Your task to perform on an android device: Do I have any events tomorrow? Image 0: 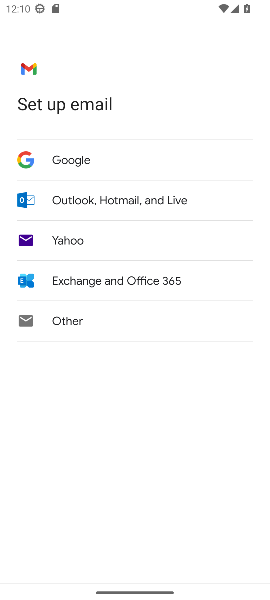
Step 0: press home button
Your task to perform on an android device: Do I have any events tomorrow? Image 1: 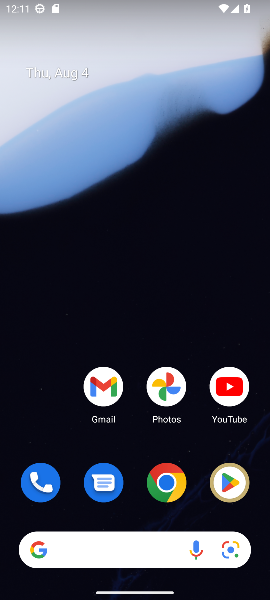
Step 1: drag from (131, 437) to (130, 154)
Your task to perform on an android device: Do I have any events tomorrow? Image 2: 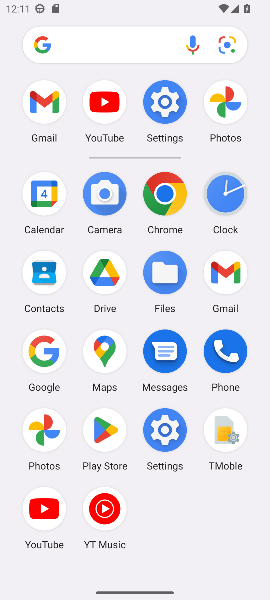
Step 2: click (38, 216)
Your task to perform on an android device: Do I have any events tomorrow? Image 3: 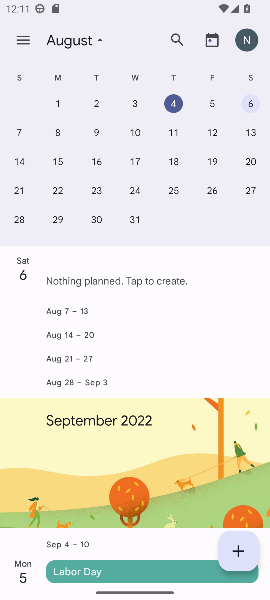
Step 3: click (217, 109)
Your task to perform on an android device: Do I have any events tomorrow? Image 4: 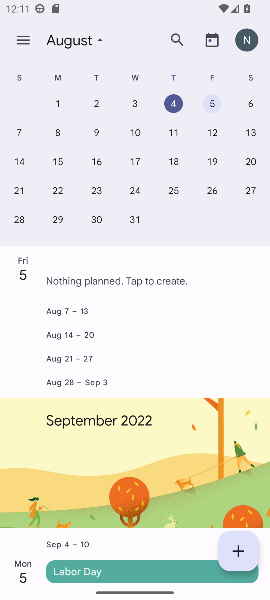
Step 4: task complete